Your task to perform on an android device: Open privacy settings Image 0: 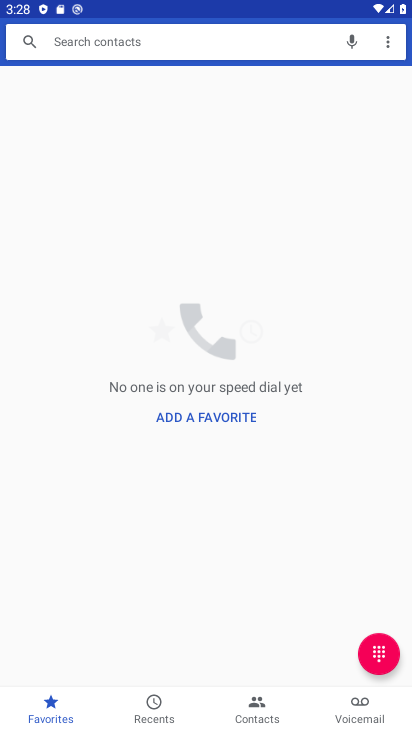
Step 0: press home button
Your task to perform on an android device: Open privacy settings Image 1: 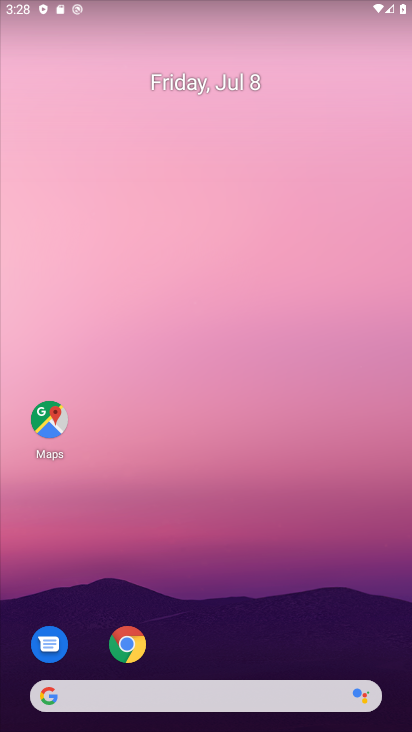
Step 1: click (123, 639)
Your task to perform on an android device: Open privacy settings Image 2: 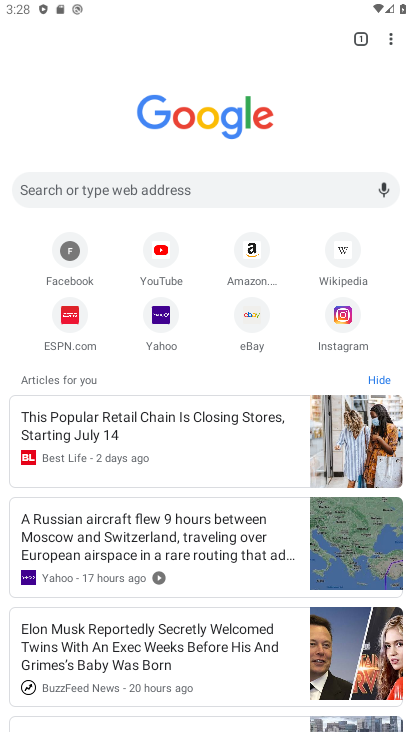
Step 2: click (391, 39)
Your task to perform on an android device: Open privacy settings Image 3: 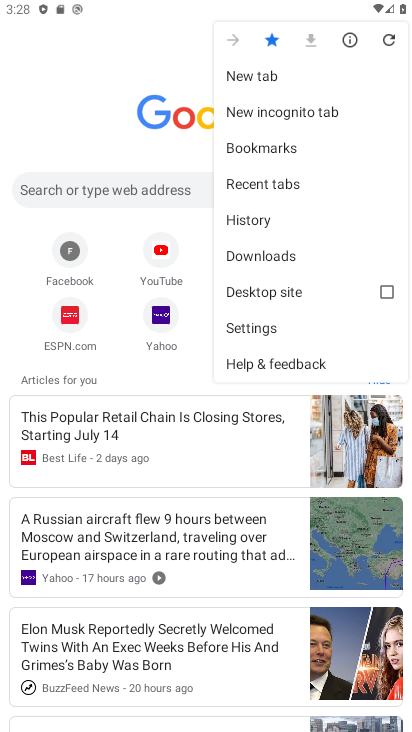
Step 3: click (288, 335)
Your task to perform on an android device: Open privacy settings Image 4: 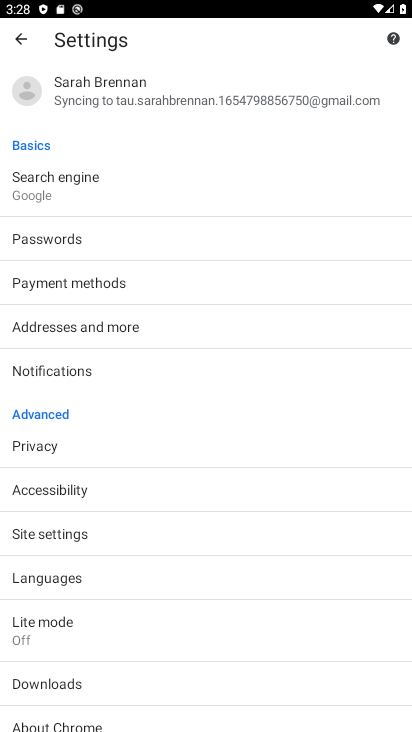
Step 4: click (63, 447)
Your task to perform on an android device: Open privacy settings Image 5: 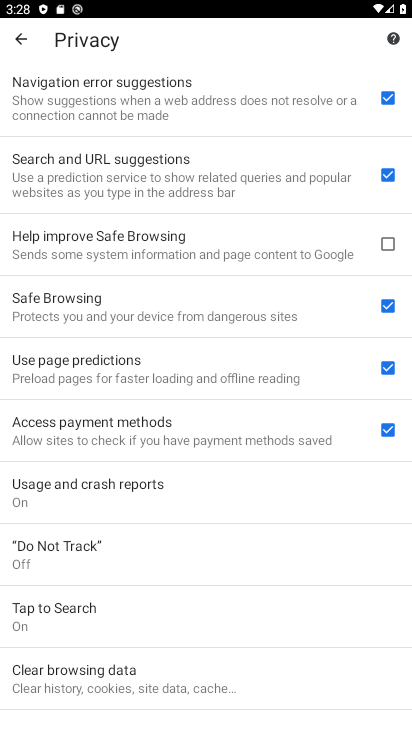
Step 5: task complete